Your task to perform on an android device: What's the weather going to be tomorrow? Image 0: 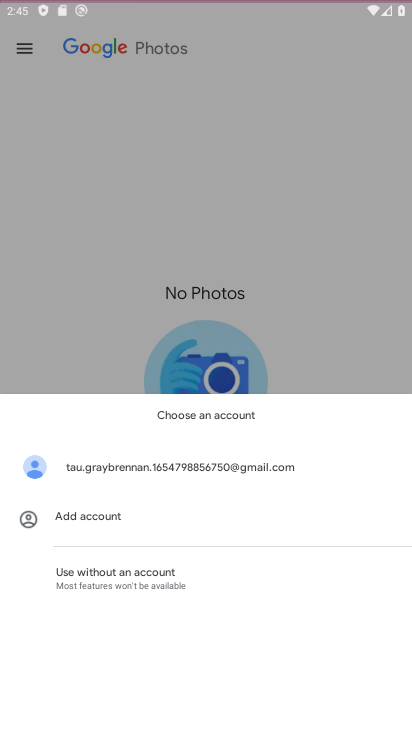
Step 0: click (380, 284)
Your task to perform on an android device: What's the weather going to be tomorrow? Image 1: 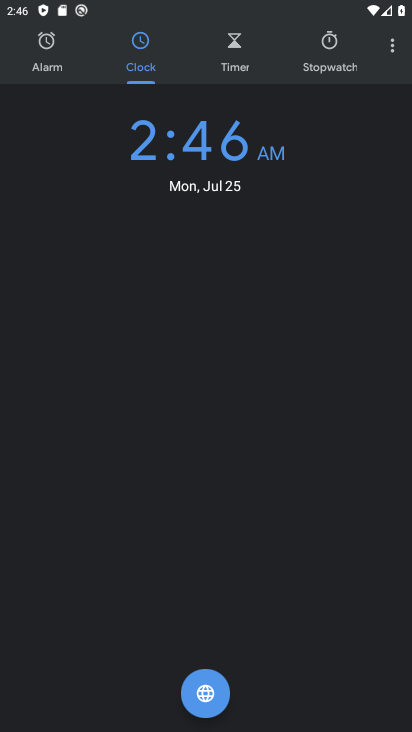
Step 1: press back button
Your task to perform on an android device: What's the weather going to be tomorrow? Image 2: 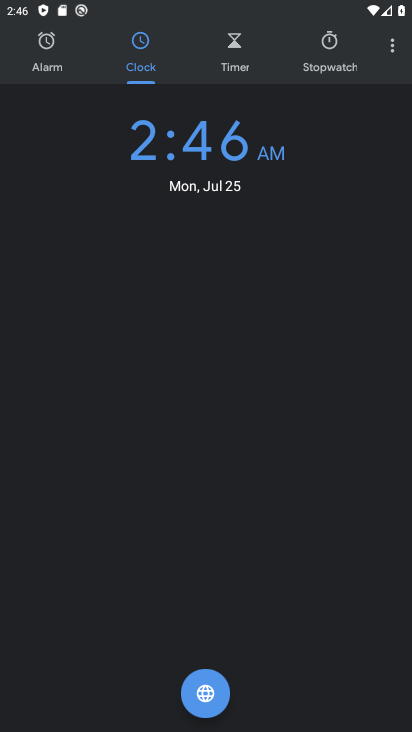
Step 2: press back button
Your task to perform on an android device: What's the weather going to be tomorrow? Image 3: 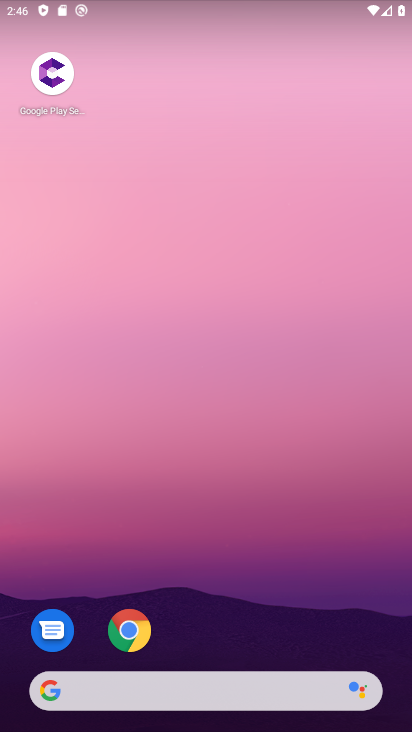
Step 3: press back button
Your task to perform on an android device: What's the weather going to be tomorrow? Image 4: 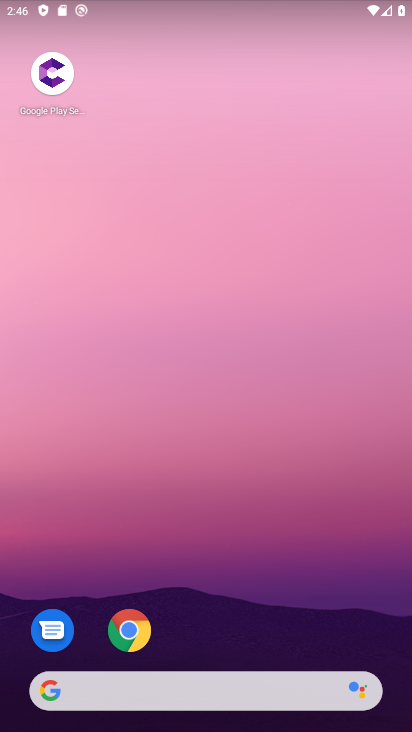
Step 4: click (238, 22)
Your task to perform on an android device: What's the weather going to be tomorrow? Image 5: 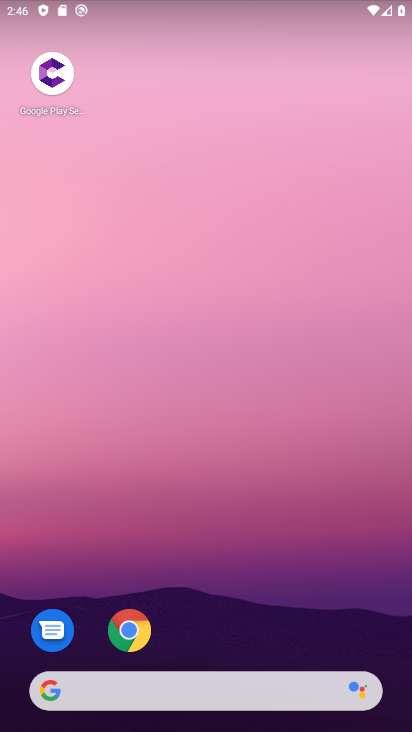
Step 5: drag from (298, 498) to (299, 123)
Your task to perform on an android device: What's the weather going to be tomorrow? Image 6: 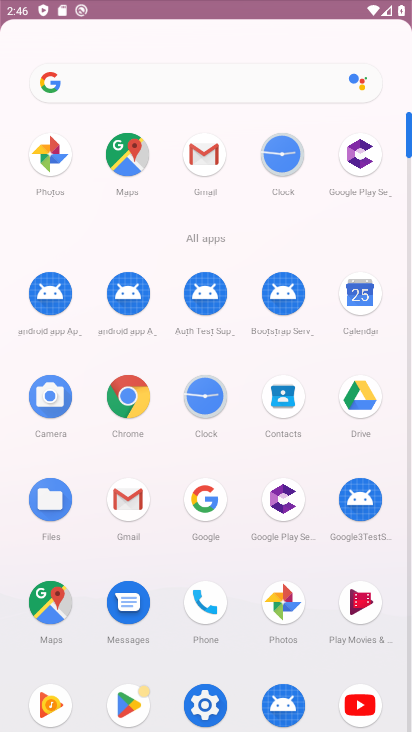
Step 6: click (224, 182)
Your task to perform on an android device: What's the weather going to be tomorrow? Image 7: 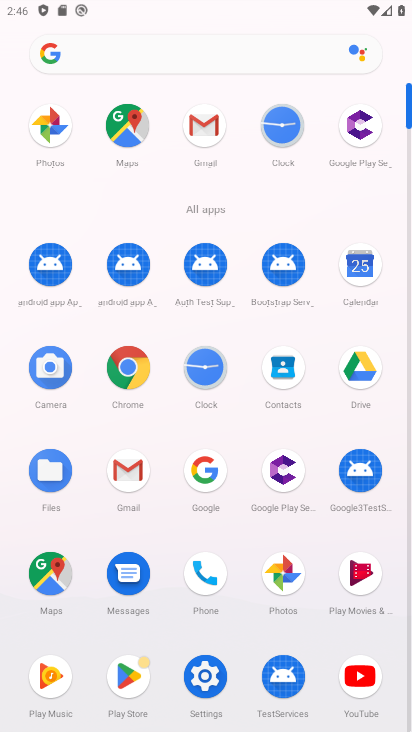
Step 7: drag from (279, 442) to (247, 211)
Your task to perform on an android device: What's the weather going to be tomorrow? Image 8: 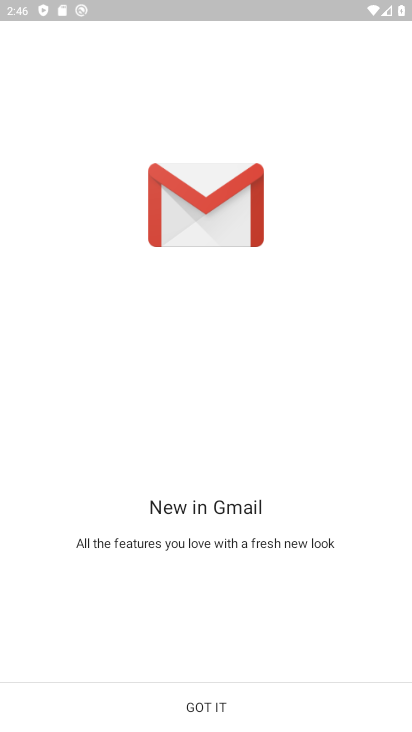
Step 8: press back button
Your task to perform on an android device: What's the weather going to be tomorrow? Image 9: 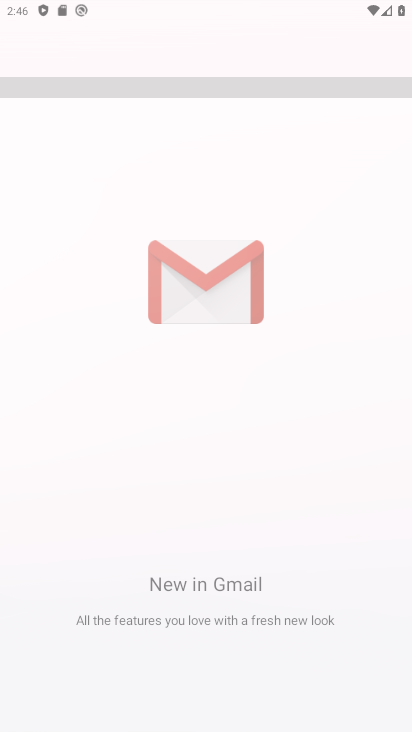
Step 9: press back button
Your task to perform on an android device: What's the weather going to be tomorrow? Image 10: 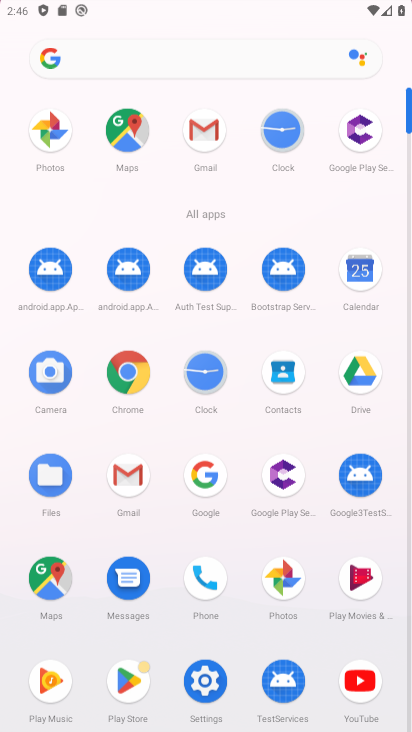
Step 10: press back button
Your task to perform on an android device: What's the weather going to be tomorrow? Image 11: 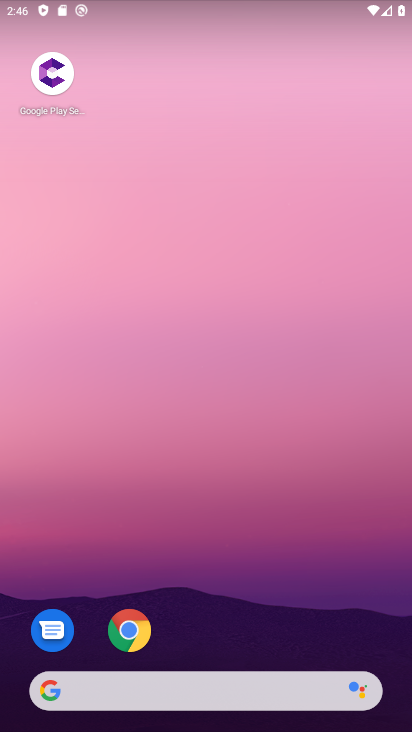
Step 11: click (95, 8)
Your task to perform on an android device: What's the weather going to be tomorrow? Image 12: 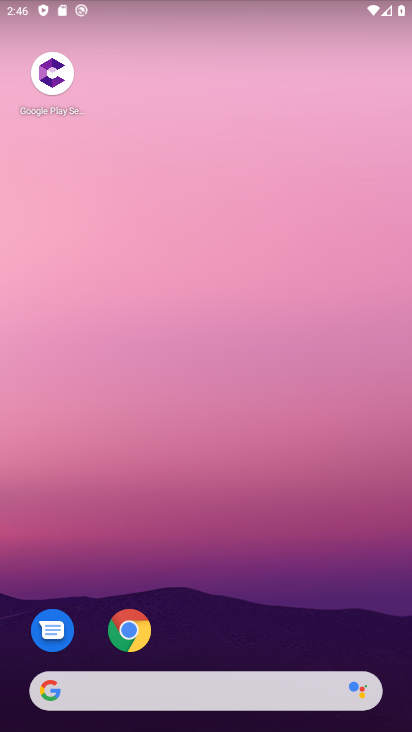
Step 12: click (206, 57)
Your task to perform on an android device: What's the weather going to be tomorrow? Image 13: 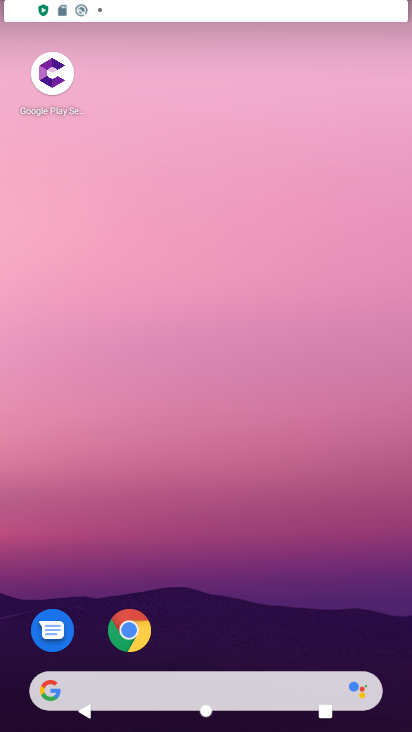
Step 13: drag from (254, 364) to (331, 78)
Your task to perform on an android device: What's the weather going to be tomorrow? Image 14: 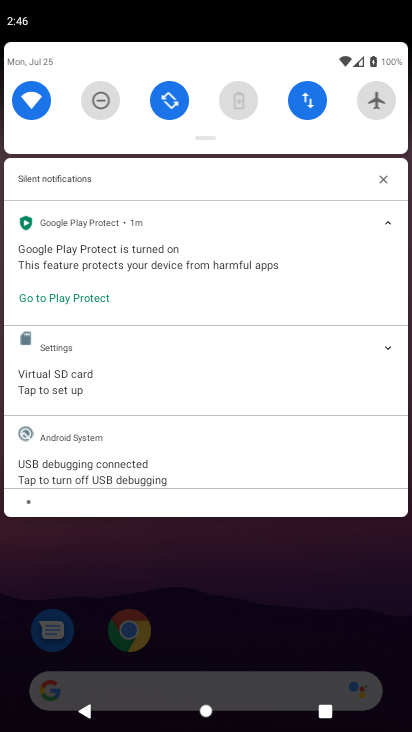
Step 14: drag from (241, 441) to (222, 14)
Your task to perform on an android device: What's the weather going to be tomorrow? Image 15: 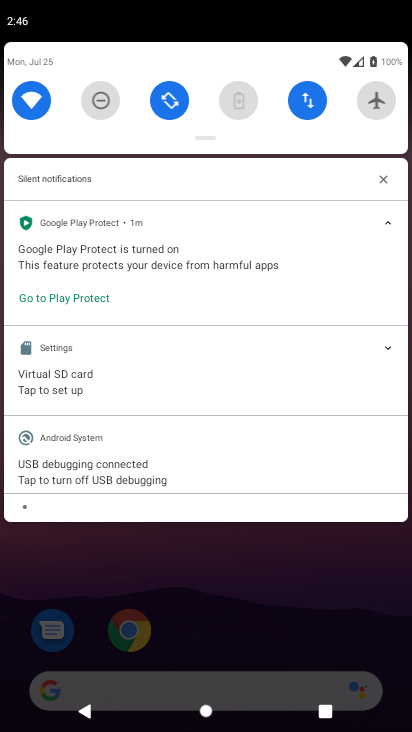
Step 15: drag from (230, 437) to (230, 51)
Your task to perform on an android device: What's the weather going to be tomorrow? Image 16: 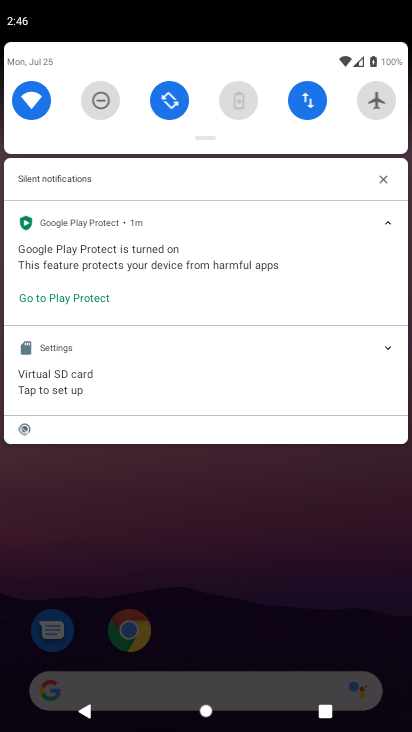
Step 16: drag from (292, 416) to (264, 41)
Your task to perform on an android device: What's the weather going to be tomorrow? Image 17: 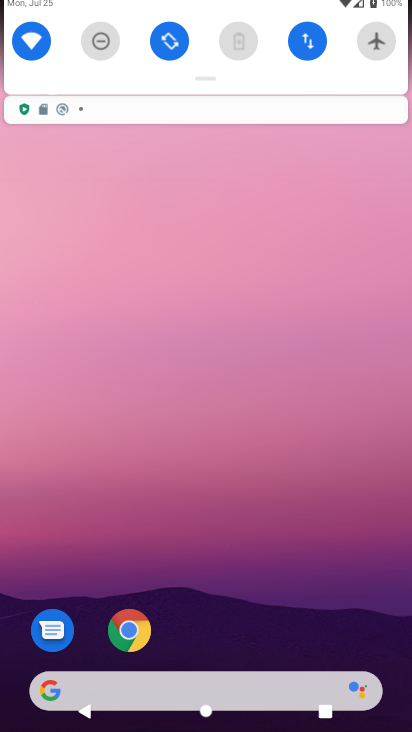
Step 17: drag from (199, 520) to (196, 138)
Your task to perform on an android device: What's the weather going to be tomorrow? Image 18: 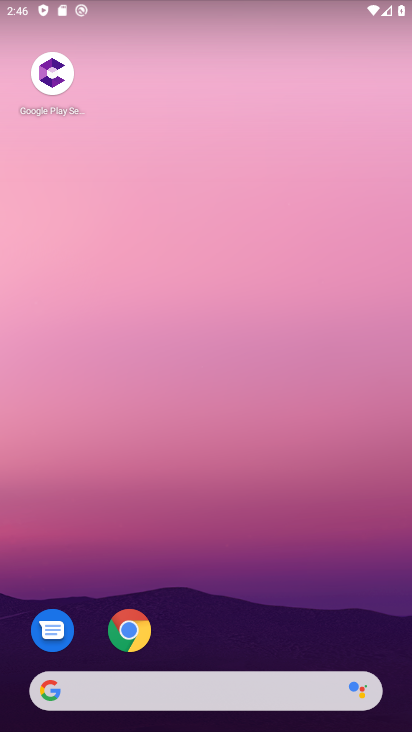
Step 18: drag from (257, 462) to (257, 258)
Your task to perform on an android device: What's the weather going to be tomorrow? Image 19: 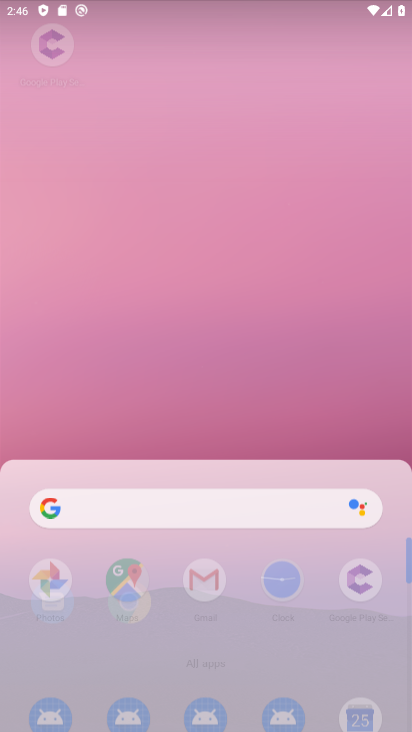
Step 19: drag from (253, 490) to (183, 27)
Your task to perform on an android device: What's the weather going to be tomorrow? Image 20: 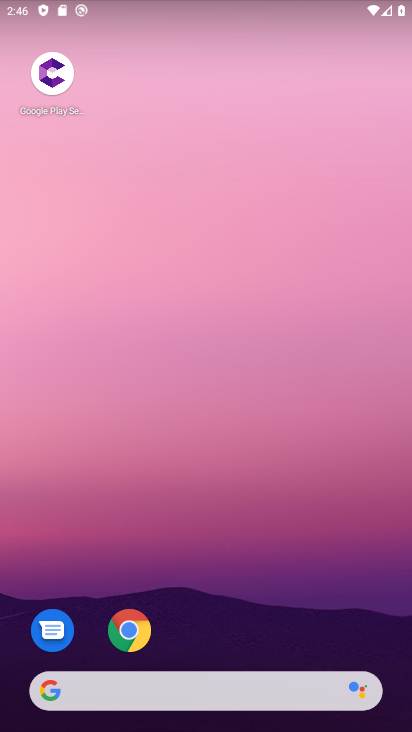
Step 20: drag from (203, 252) to (198, 0)
Your task to perform on an android device: What's the weather going to be tomorrow? Image 21: 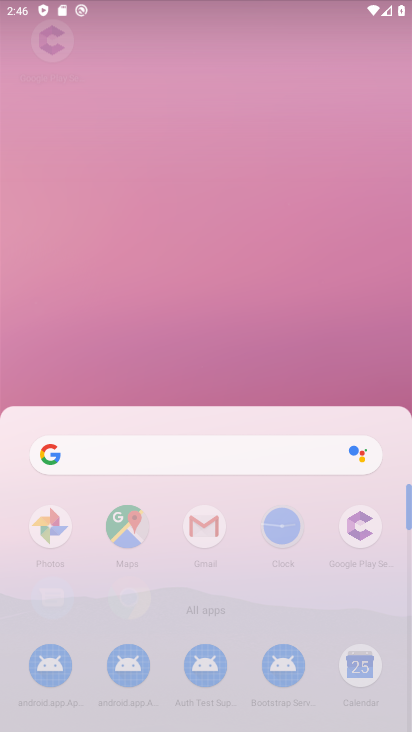
Step 21: drag from (198, 384) to (214, 69)
Your task to perform on an android device: What's the weather going to be tomorrow? Image 22: 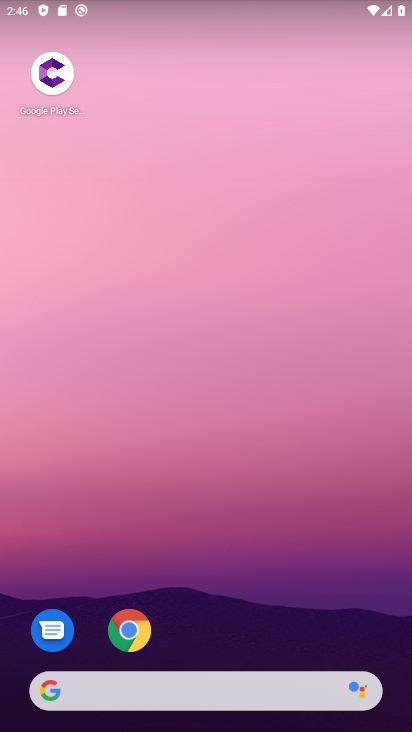
Step 22: drag from (276, 585) to (242, 148)
Your task to perform on an android device: What's the weather going to be tomorrow? Image 23: 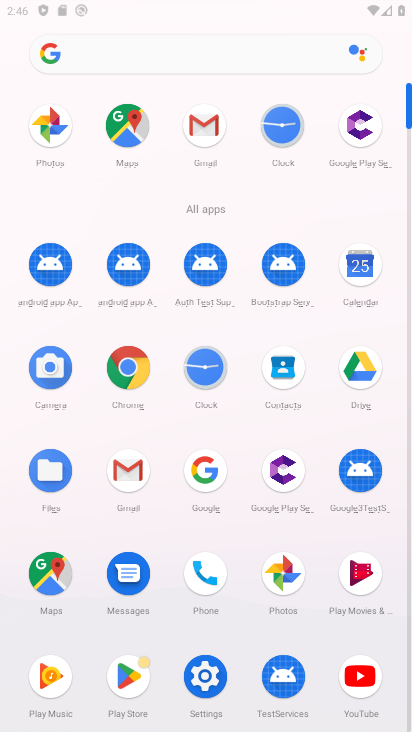
Step 23: drag from (193, 557) to (161, 82)
Your task to perform on an android device: What's the weather going to be tomorrow? Image 24: 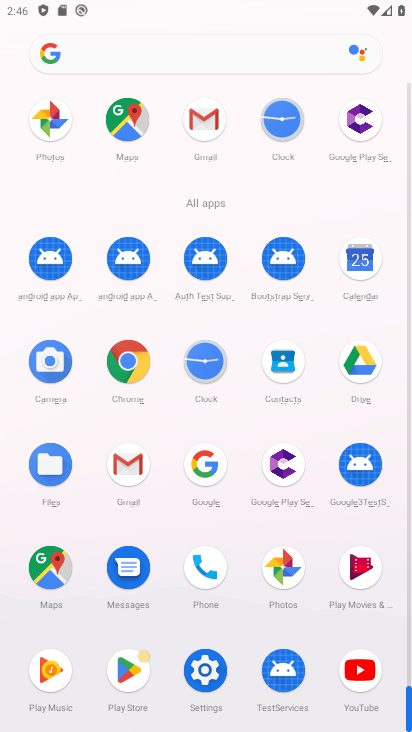
Step 24: click (130, 369)
Your task to perform on an android device: What's the weather going to be tomorrow? Image 25: 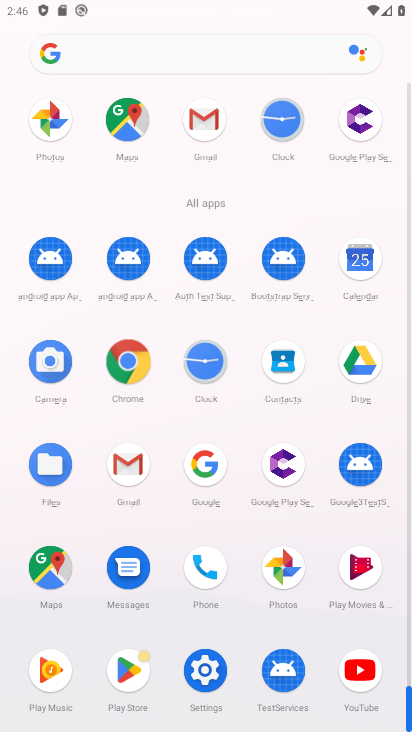
Step 25: click (130, 369)
Your task to perform on an android device: What's the weather going to be tomorrow? Image 26: 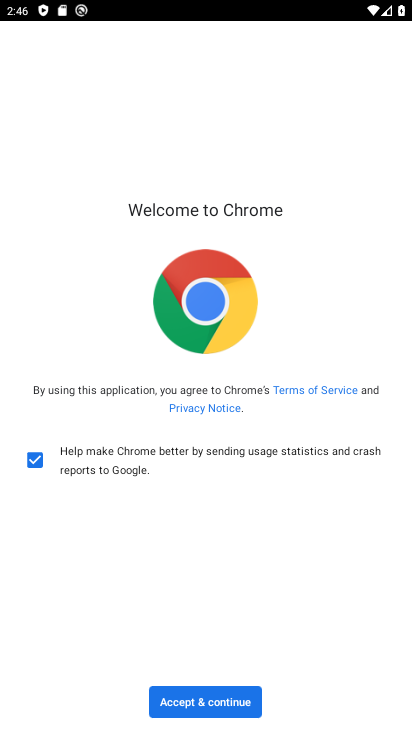
Step 26: click (215, 709)
Your task to perform on an android device: What's the weather going to be tomorrow? Image 27: 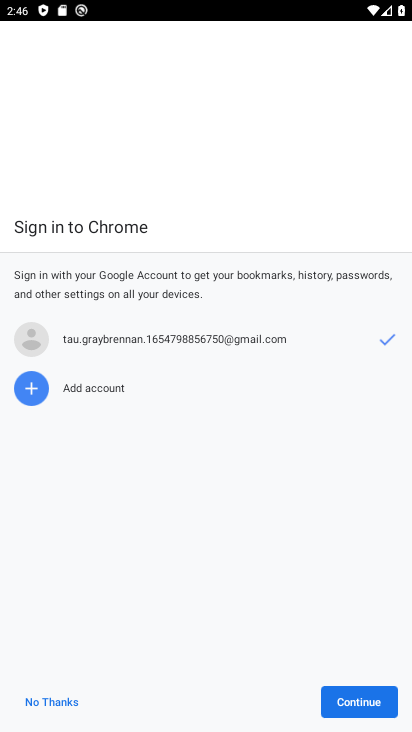
Step 27: click (223, 707)
Your task to perform on an android device: What's the weather going to be tomorrow? Image 28: 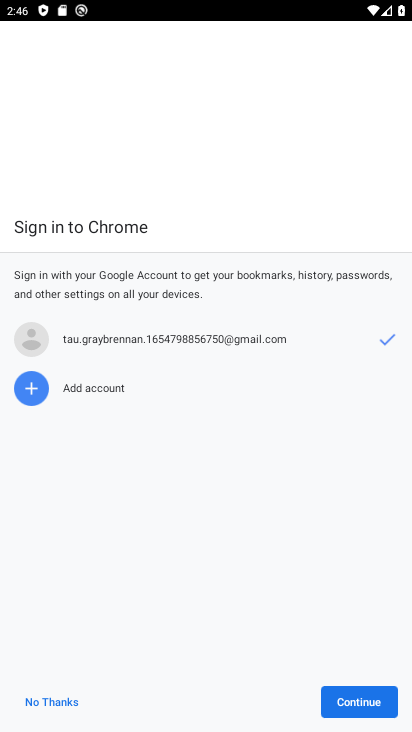
Step 28: click (48, 697)
Your task to perform on an android device: What's the weather going to be tomorrow? Image 29: 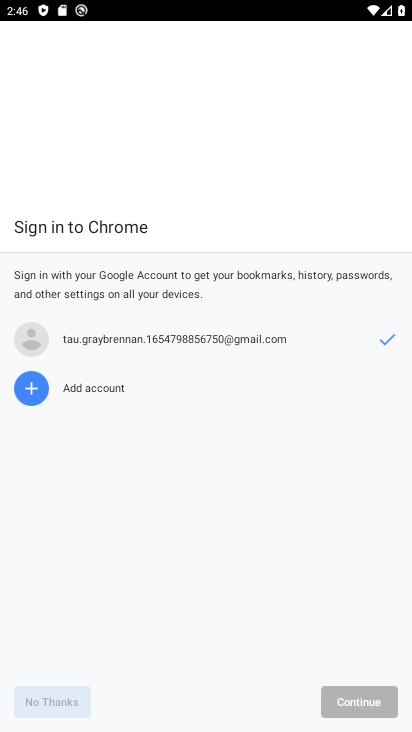
Step 29: click (58, 693)
Your task to perform on an android device: What's the weather going to be tomorrow? Image 30: 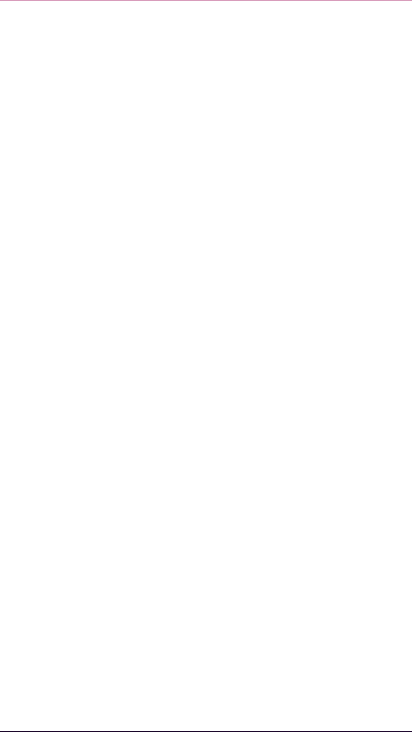
Step 30: click (59, 694)
Your task to perform on an android device: What's the weather going to be tomorrow? Image 31: 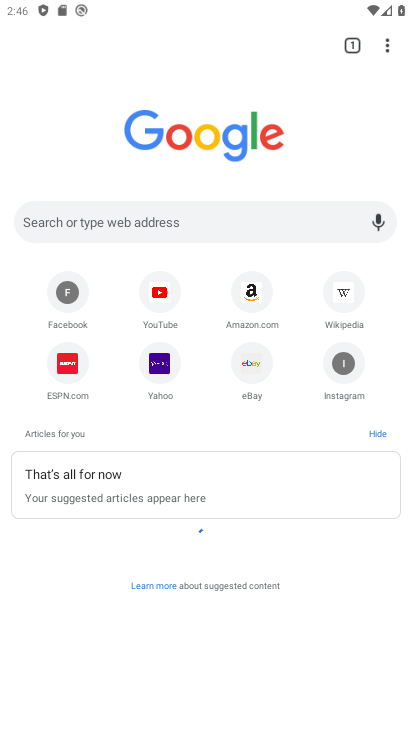
Step 31: click (98, 218)
Your task to perform on an android device: What's the weather going to be tomorrow? Image 32: 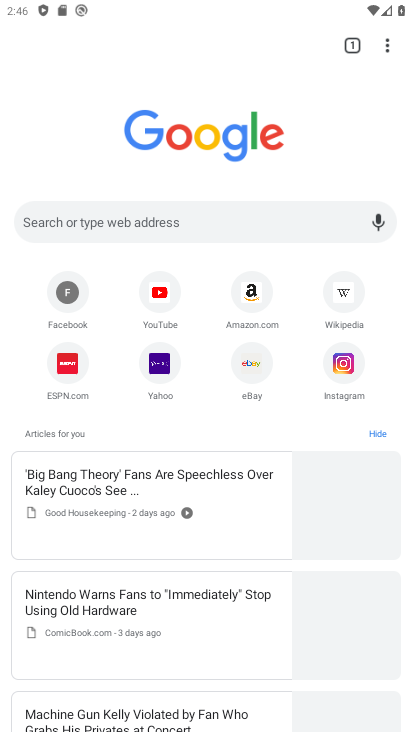
Step 32: click (98, 218)
Your task to perform on an android device: What's the weather going to be tomorrow? Image 33: 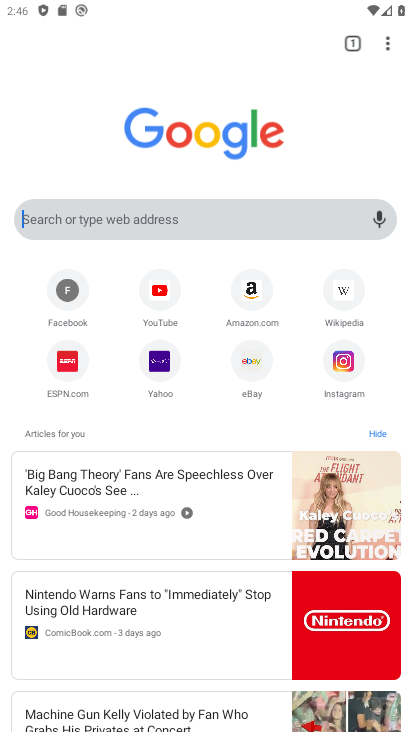
Step 33: click (97, 221)
Your task to perform on an android device: What's the weather going to be tomorrow? Image 34: 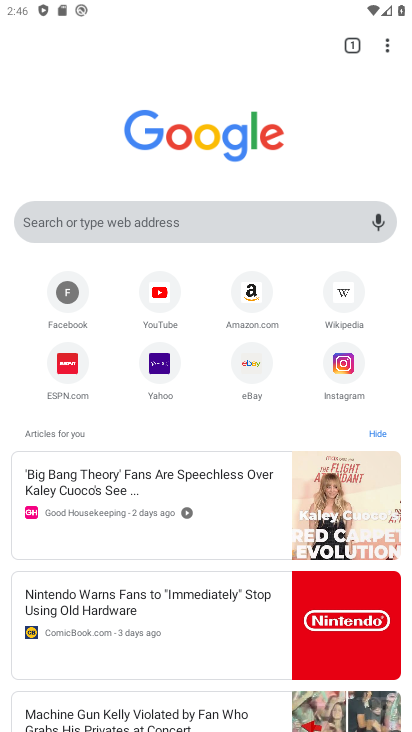
Step 34: click (81, 216)
Your task to perform on an android device: What's the weather going to be tomorrow? Image 35: 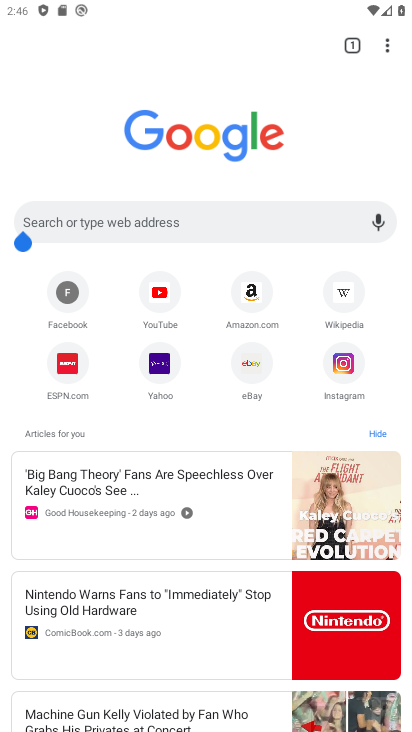
Step 35: click (89, 218)
Your task to perform on an android device: What's the weather going to be tomorrow? Image 36: 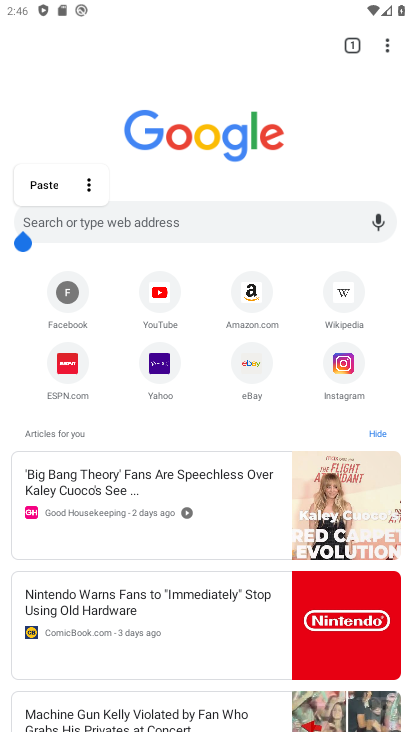
Step 36: click (96, 225)
Your task to perform on an android device: What's the weather going to be tomorrow? Image 37: 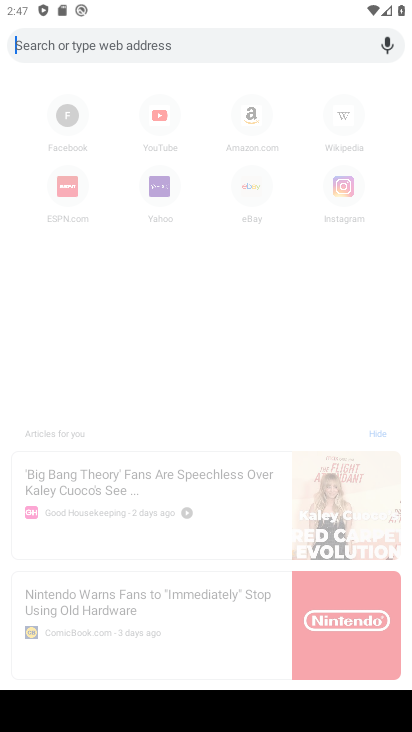
Step 37: type "weather"
Your task to perform on an android device: What's the weather going to be tomorrow? Image 38: 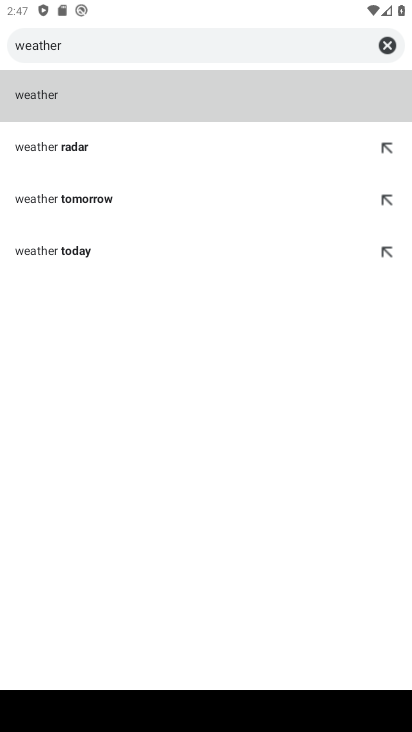
Step 38: click (48, 101)
Your task to perform on an android device: What's the weather going to be tomorrow? Image 39: 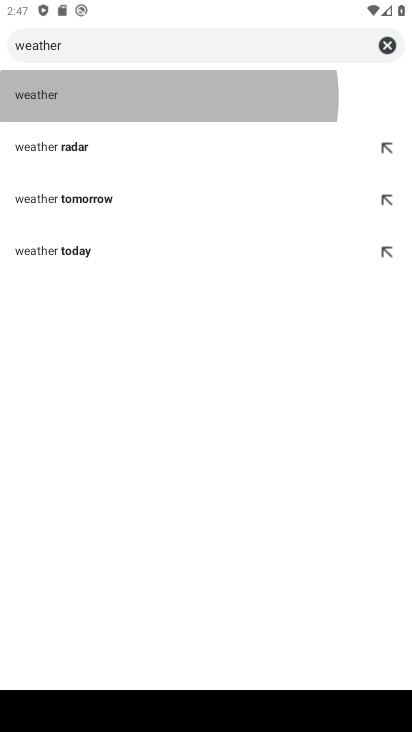
Step 39: click (48, 100)
Your task to perform on an android device: What's the weather going to be tomorrow? Image 40: 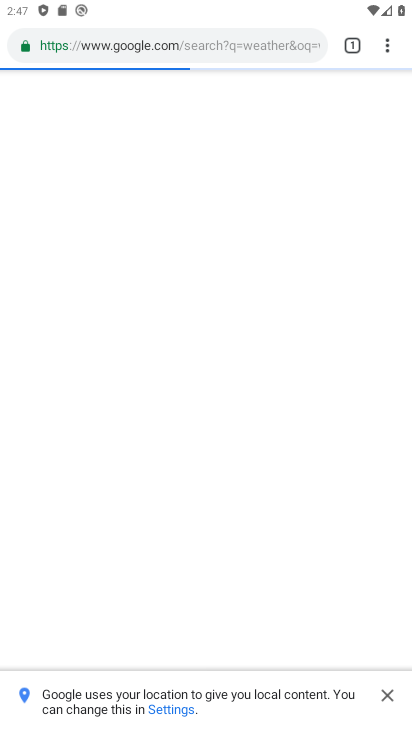
Step 40: task complete